Your task to perform on an android device: turn on sleep mode Image 0: 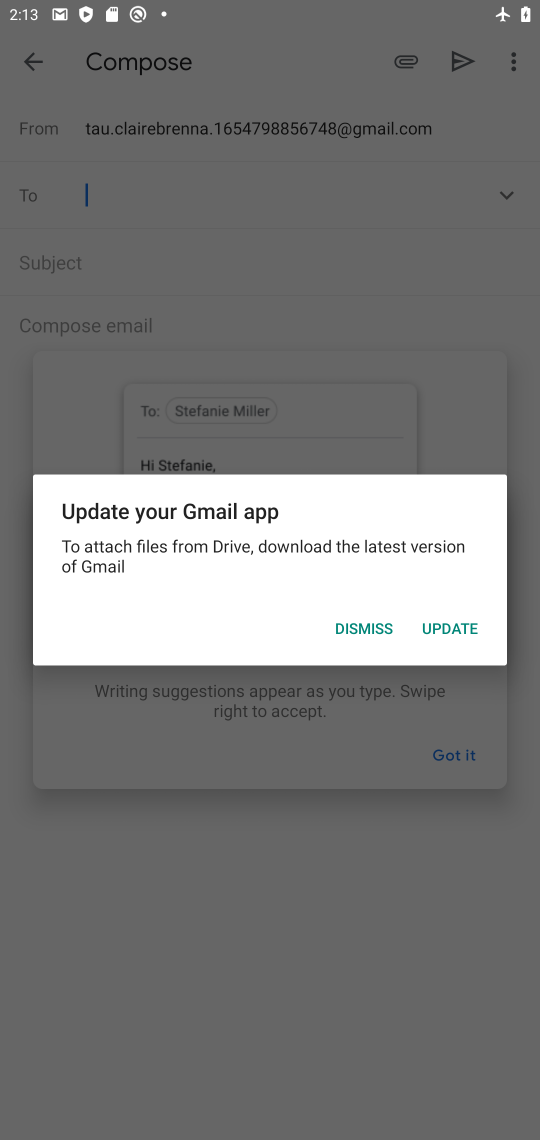
Step 0: press home button
Your task to perform on an android device: turn on sleep mode Image 1: 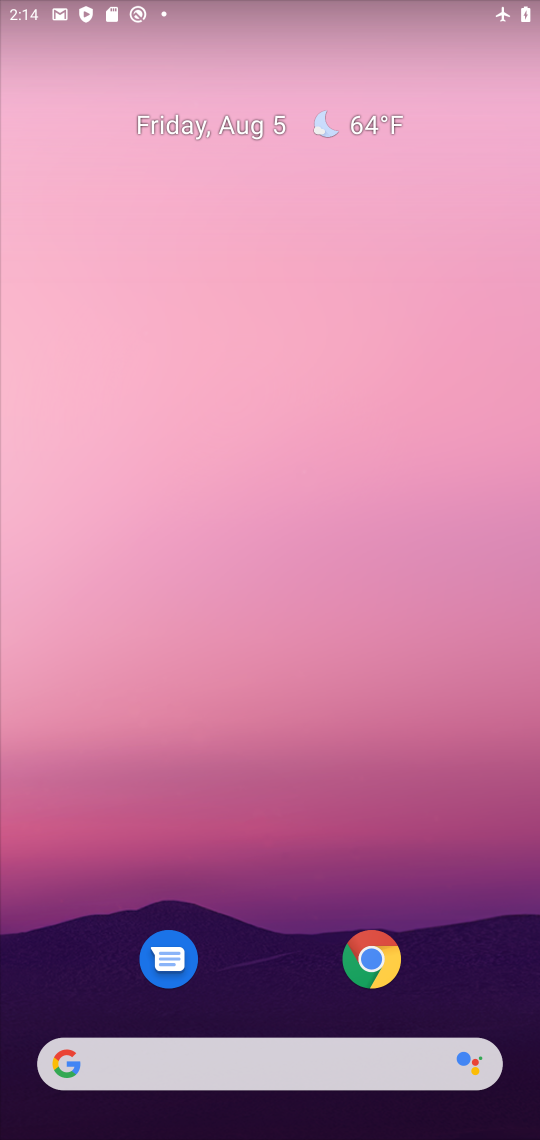
Step 1: drag from (109, 973) to (236, 10)
Your task to perform on an android device: turn on sleep mode Image 2: 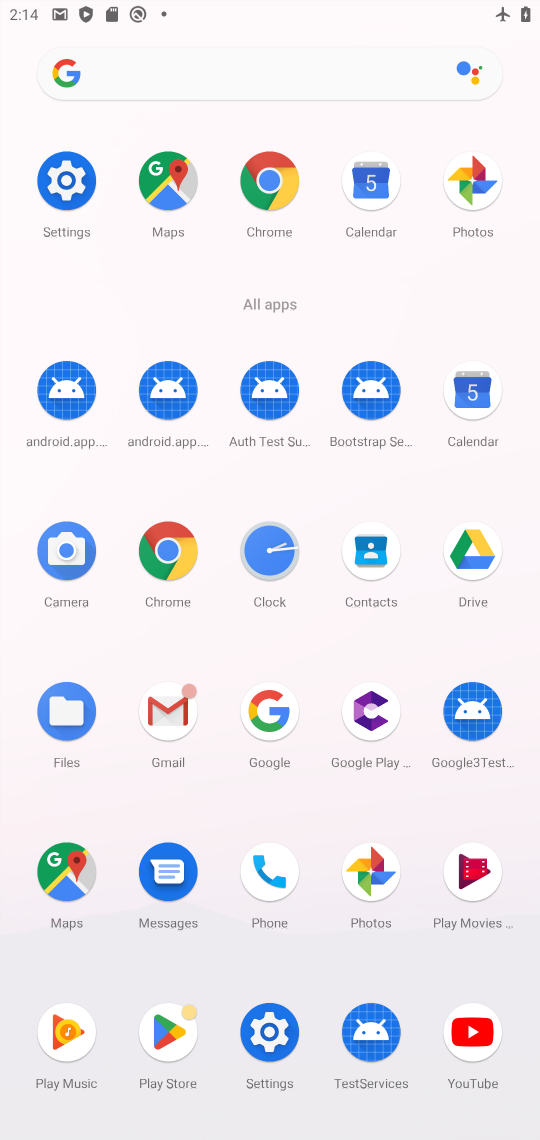
Step 2: click (72, 190)
Your task to perform on an android device: turn on sleep mode Image 3: 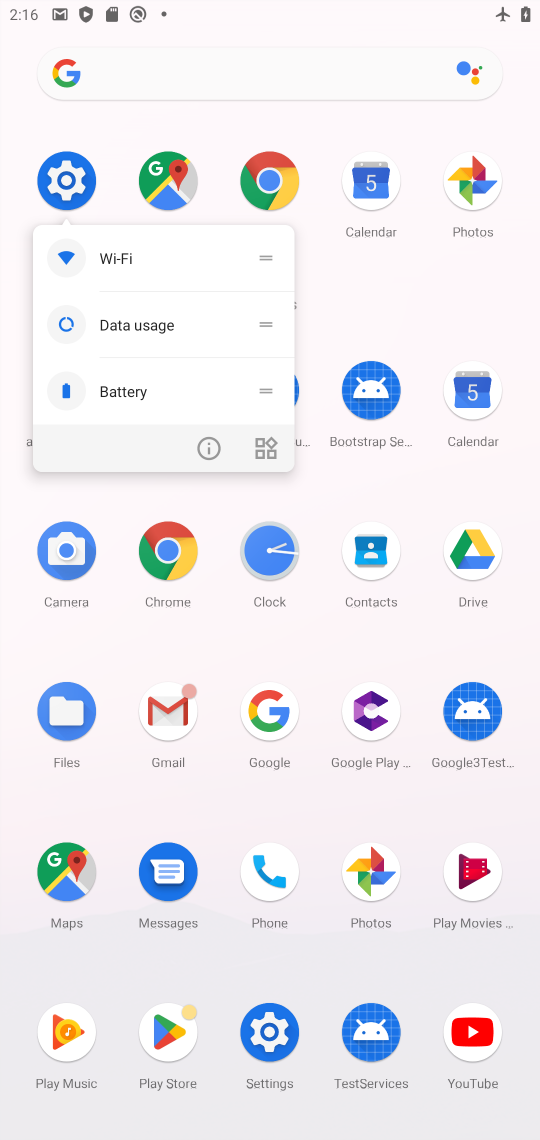
Step 3: click (79, 175)
Your task to perform on an android device: turn on sleep mode Image 4: 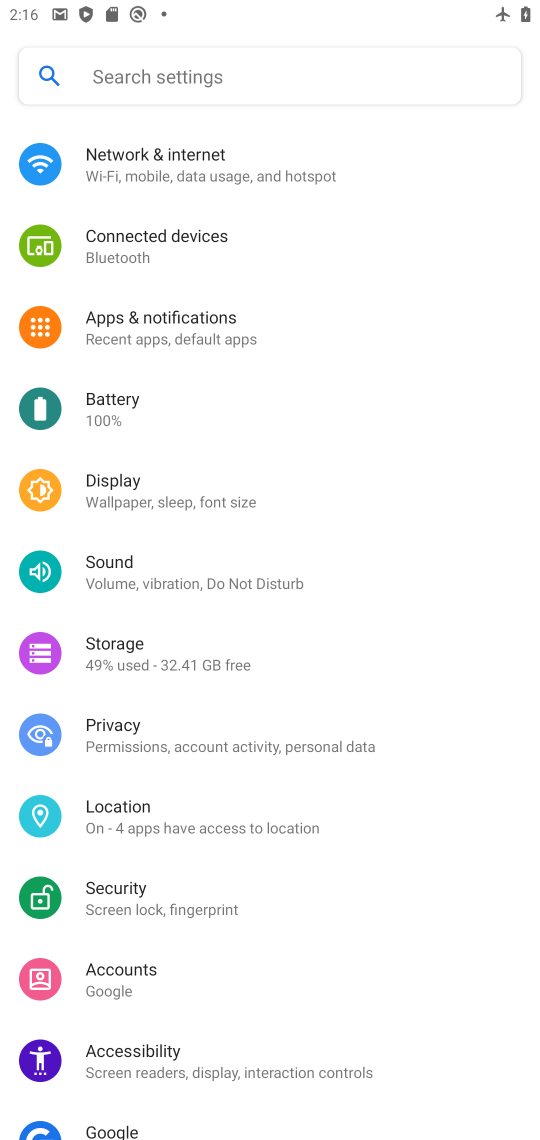
Step 4: click (243, 470)
Your task to perform on an android device: turn on sleep mode Image 5: 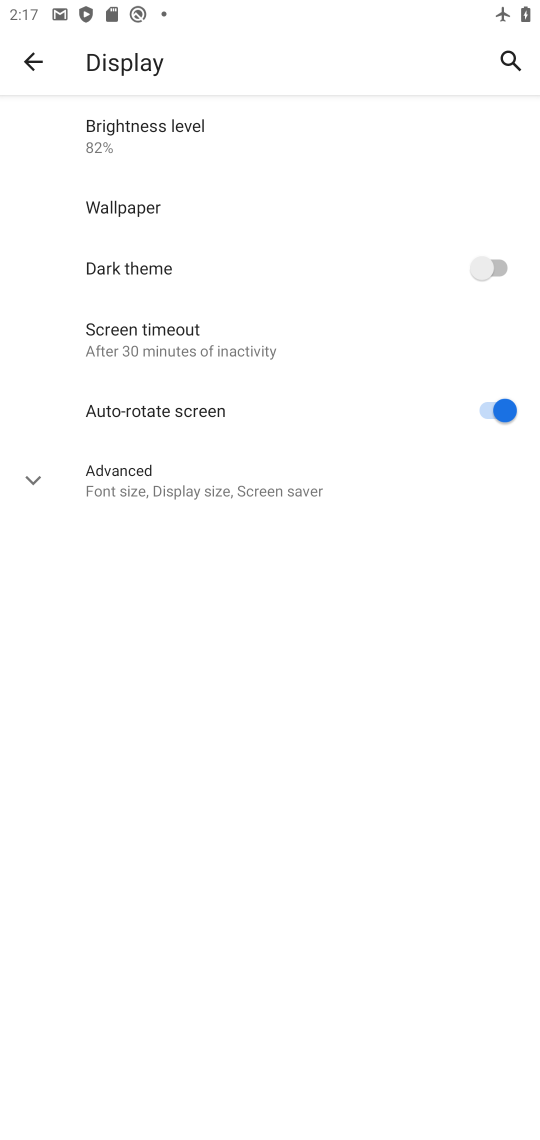
Step 5: task complete